Your task to perform on an android device: toggle priority inbox in the gmail app Image 0: 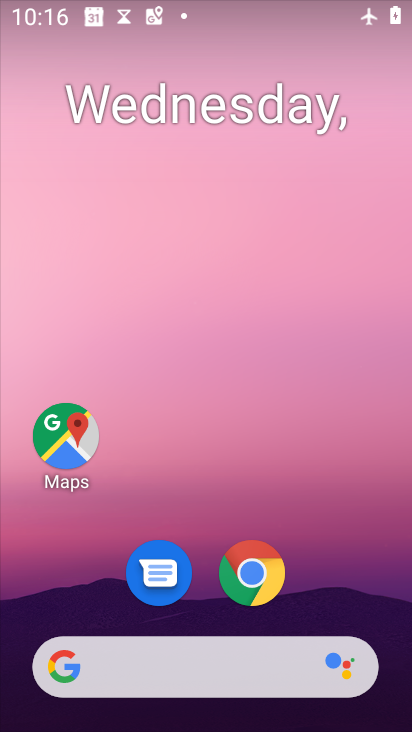
Step 0: drag from (362, 563) to (352, 236)
Your task to perform on an android device: toggle priority inbox in the gmail app Image 1: 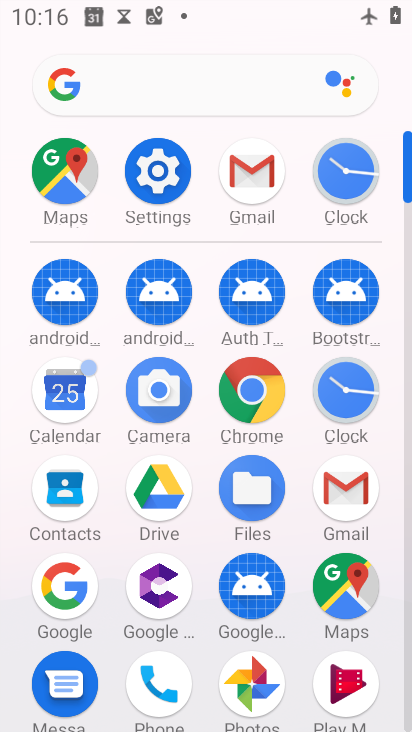
Step 1: click (335, 479)
Your task to perform on an android device: toggle priority inbox in the gmail app Image 2: 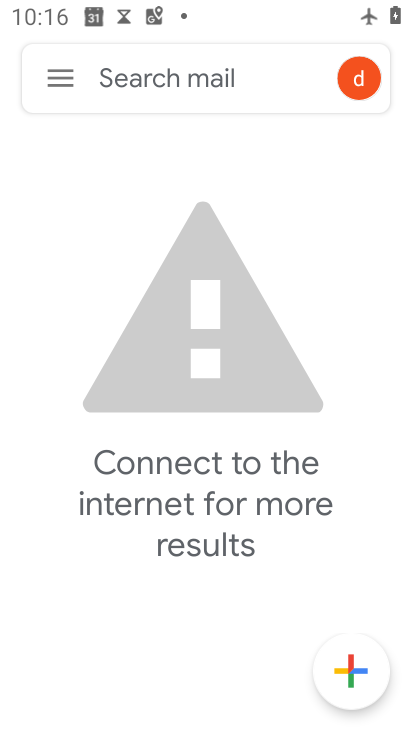
Step 2: click (61, 74)
Your task to perform on an android device: toggle priority inbox in the gmail app Image 3: 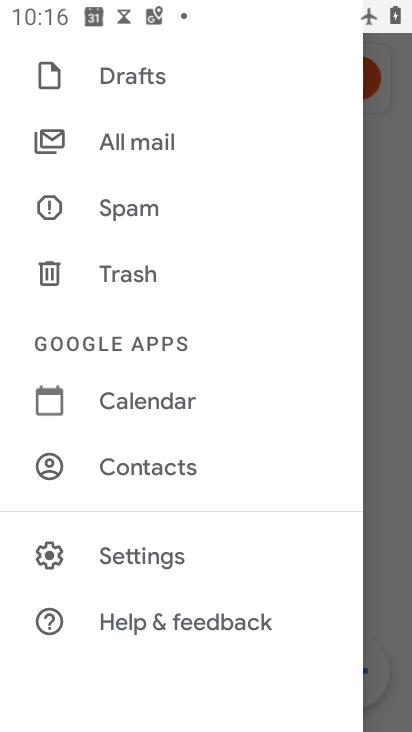
Step 3: click (128, 558)
Your task to perform on an android device: toggle priority inbox in the gmail app Image 4: 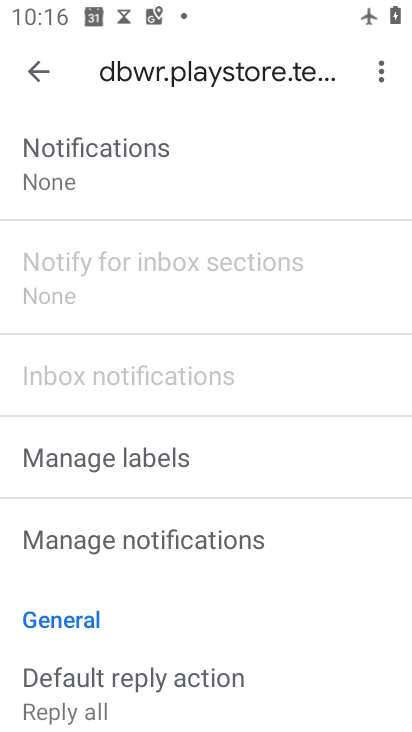
Step 4: drag from (150, 229) to (150, 594)
Your task to perform on an android device: toggle priority inbox in the gmail app Image 5: 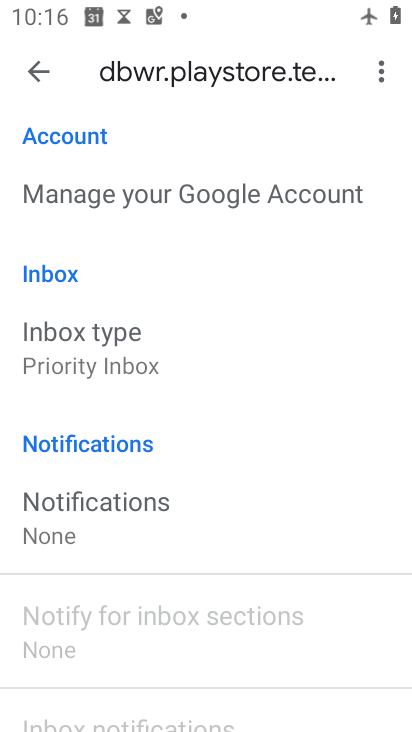
Step 5: click (104, 347)
Your task to perform on an android device: toggle priority inbox in the gmail app Image 6: 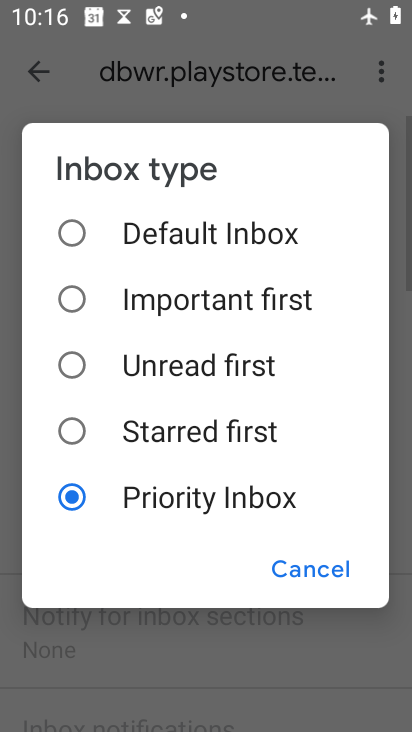
Step 6: click (128, 220)
Your task to perform on an android device: toggle priority inbox in the gmail app Image 7: 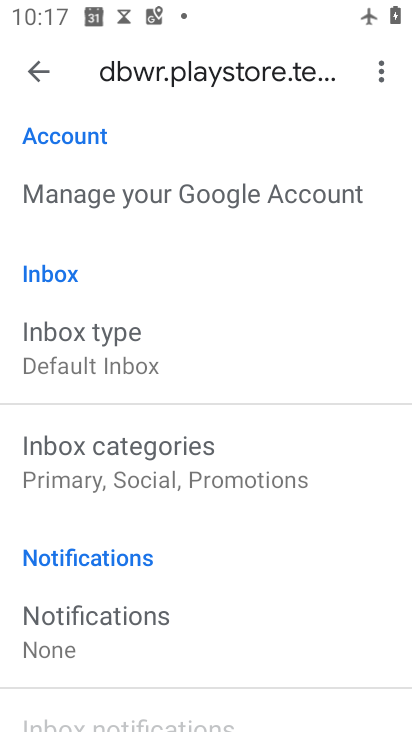
Step 7: task complete